Your task to perform on an android device: Open the calendar app, open the side menu, and click the "Day" option Image 0: 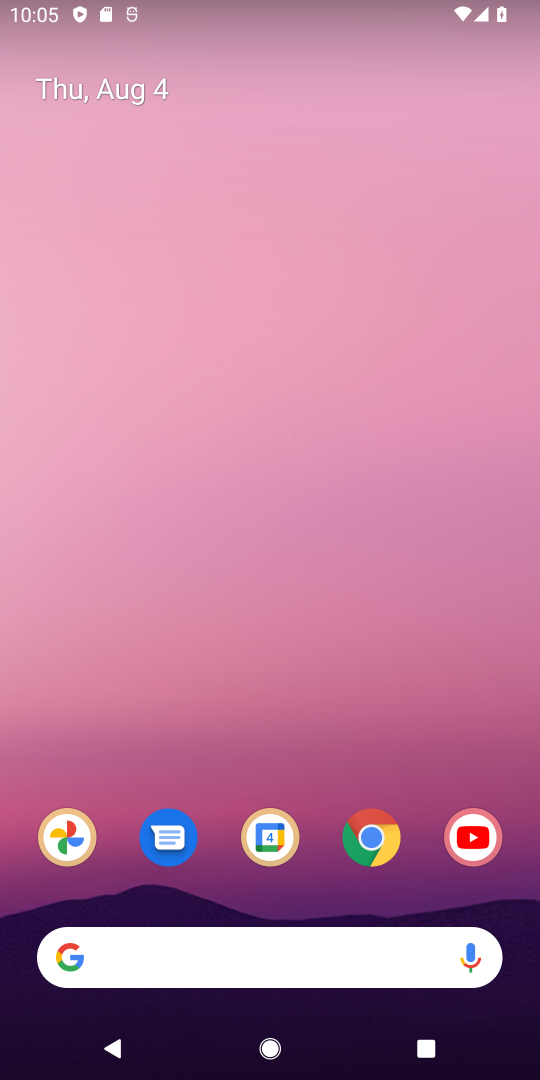
Step 0: press home button
Your task to perform on an android device: Open the calendar app, open the side menu, and click the "Day" option Image 1: 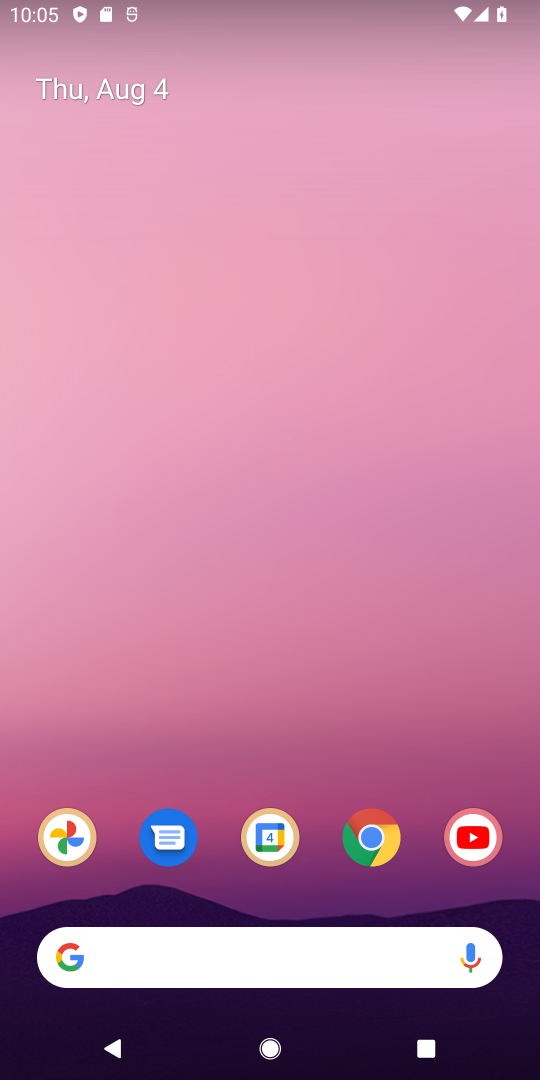
Step 1: click (257, 827)
Your task to perform on an android device: Open the calendar app, open the side menu, and click the "Day" option Image 2: 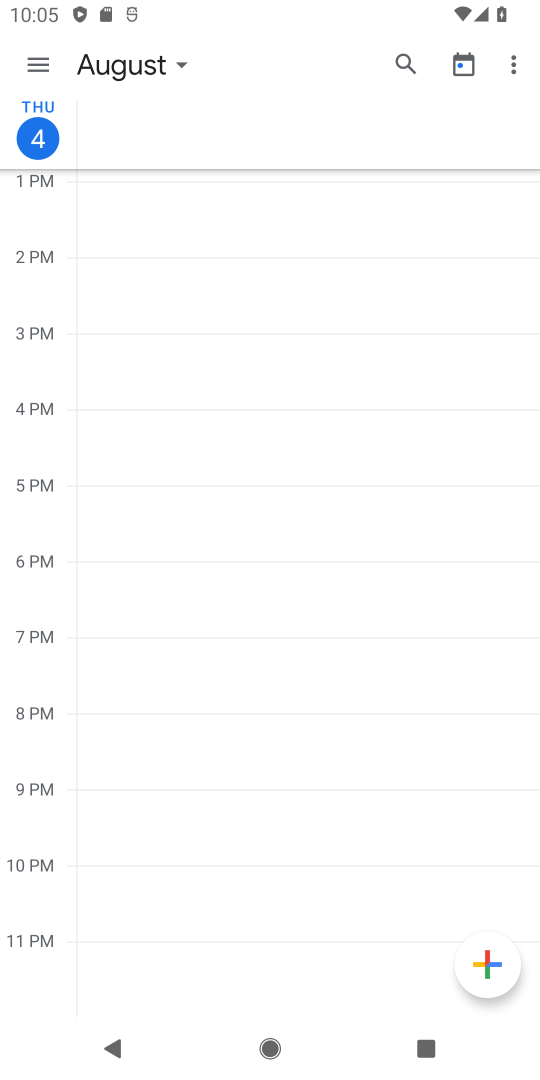
Step 2: click (41, 70)
Your task to perform on an android device: Open the calendar app, open the side menu, and click the "Day" option Image 3: 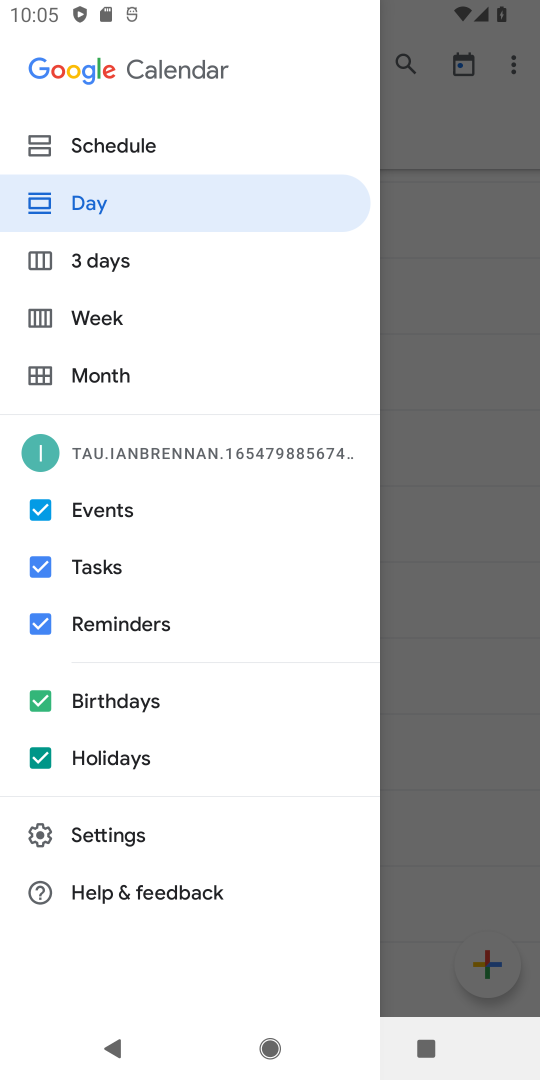
Step 3: click (122, 205)
Your task to perform on an android device: Open the calendar app, open the side menu, and click the "Day" option Image 4: 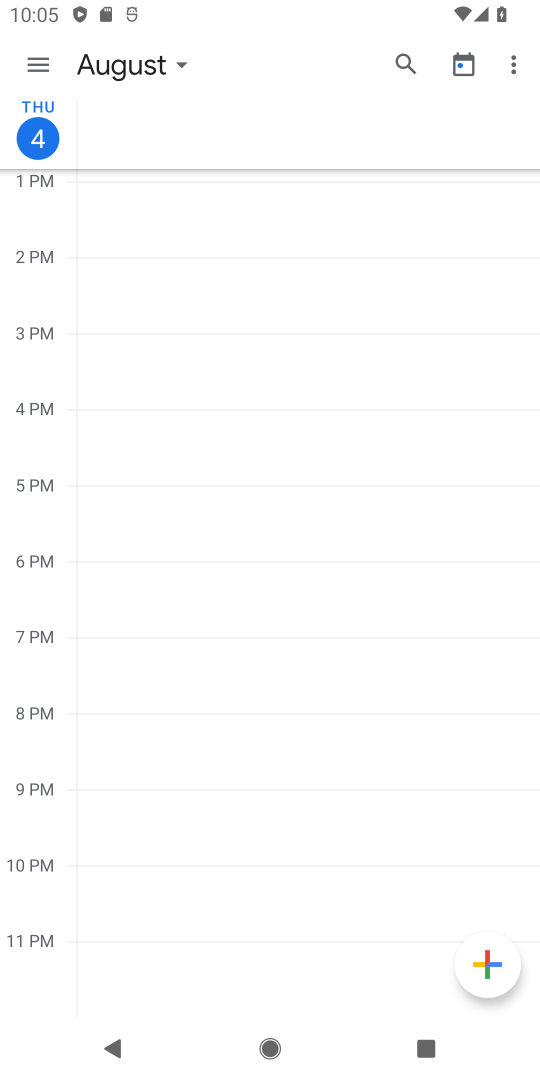
Step 4: task complete